Your task to perform on an android device: When is my next meeting? Image 0: 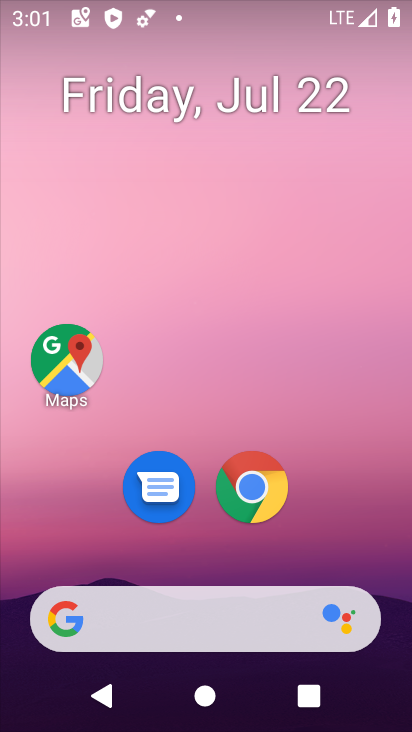
Step 0: drag from (144, 500) to (257, 28)
Your task to perform on an android device: When is my next meeting? Image 1: 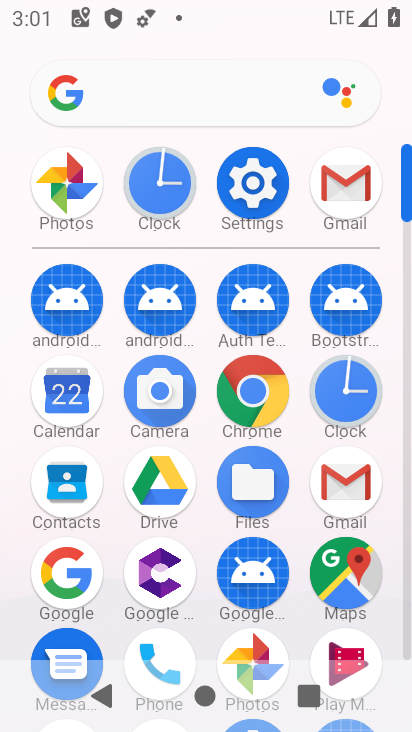
Step 1: click (62, 396)
Your task to perform on an android device: When is my next meeting? Image 2: 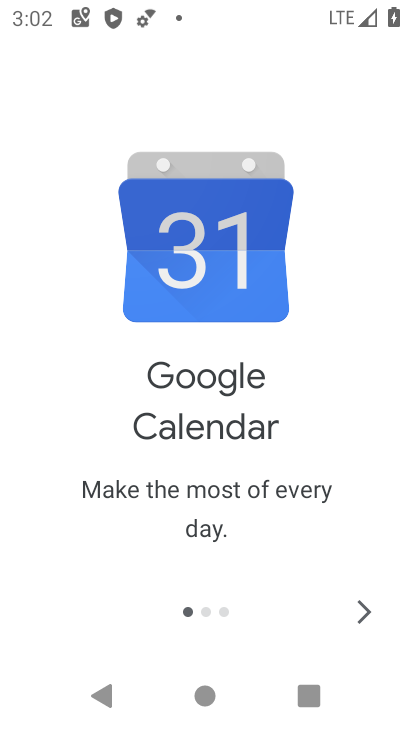
Step 2: click (351, 608)
Your task to perform on an android device: When is my next meeting? Image 3: 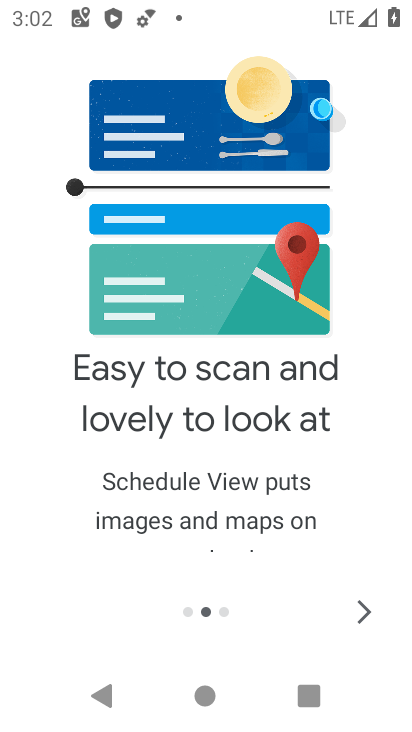
Step 3: click (364, 607)
Your task to perform on an android device: When is my next meeting? Image 4: 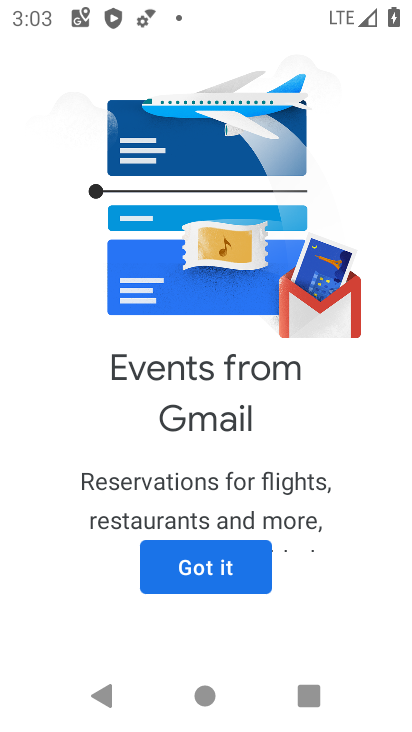
Step 4: click (249, 572)
Your task to perform on an android device: When is my next meeting? Image 5: 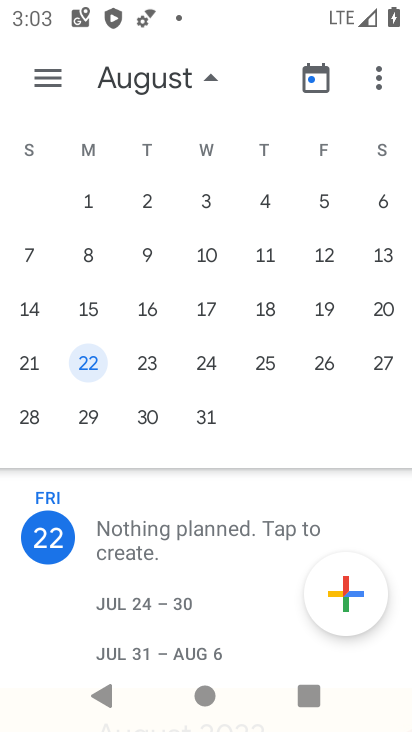
Step 5: task complete